Your task to perform on an android device: see tabs open on other devices in the chrome app Image 0: 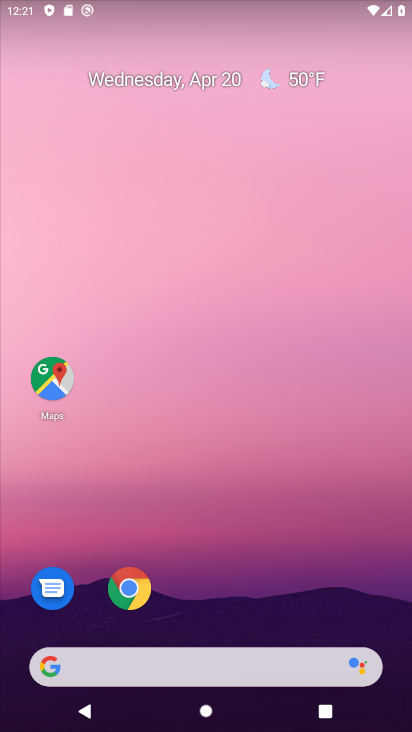
Step 0: click (126, 583)
Your task to perform on an android device: see tabs open on other devices in the chrome app Image 1: 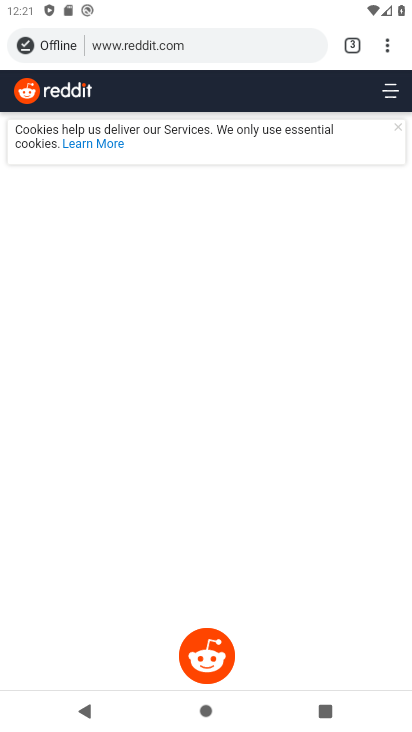
Step 1: click (385, 44)
Your task to perform on an android device: see tabs open on other devices in the chrome app Image 2: 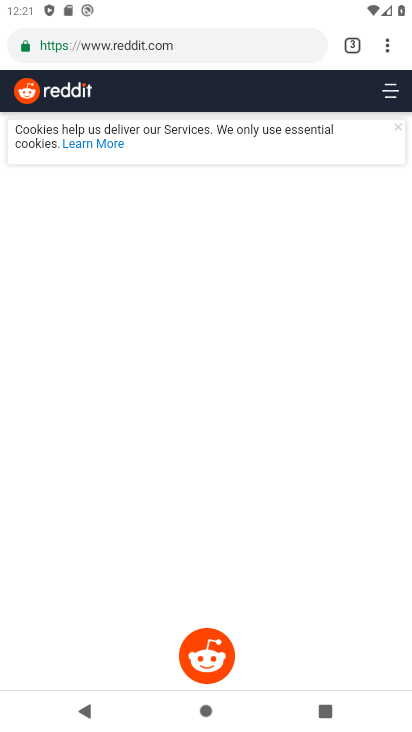
Step 2: click (388, 38)
Your task to perform on an android device: see tabs open on other devices in the chrome app Image 3: 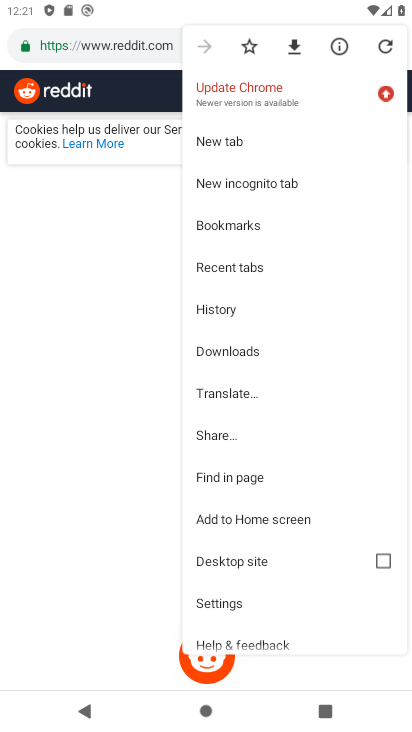
Step 3: click (268, 261)
Your task to perform on an android device: see tabs open on other devices in the chrome app Image 4: 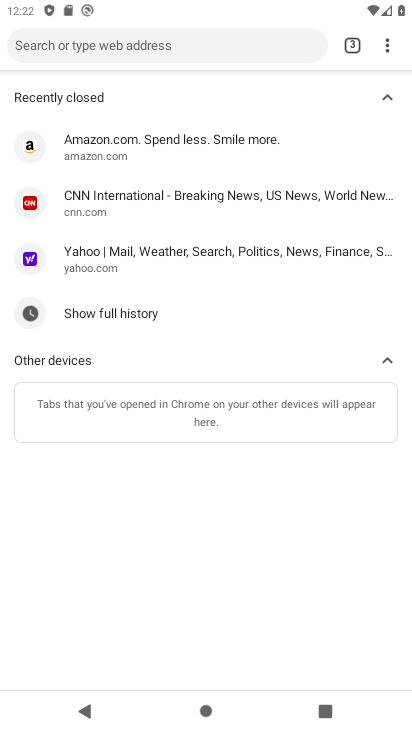
Step 4: task complete